Your task to perform on an android device: Open the map Image 0: 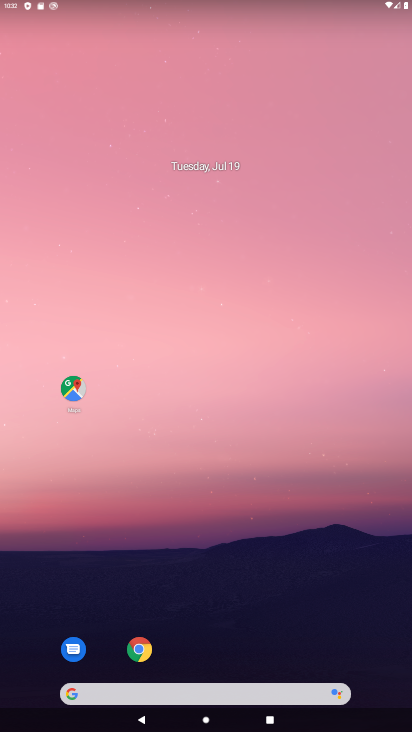
Step 0: drag from (243, 678) to (348, 104)
Your task to perform on an android device: Open the map Image 1: 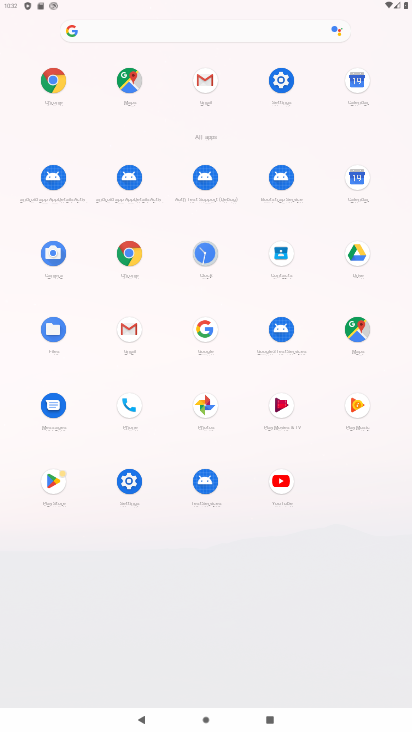
Step 1: click (355, 333)
Your task to perform on an android device: Open the map Image 2: 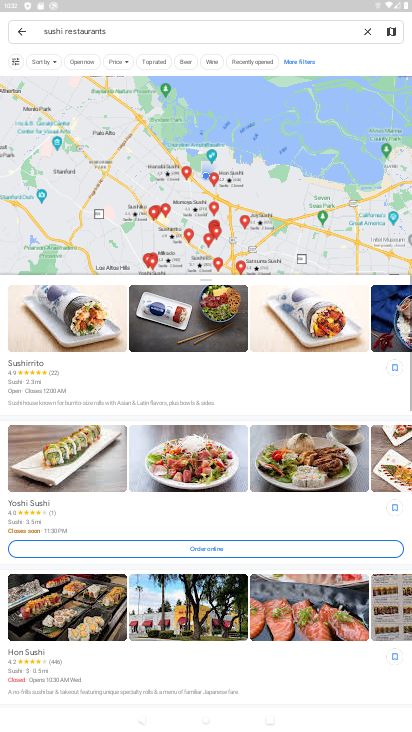
Step 2: task complete